Your task to perform on an android device: Clear the cart on walmart.com. Image 0: 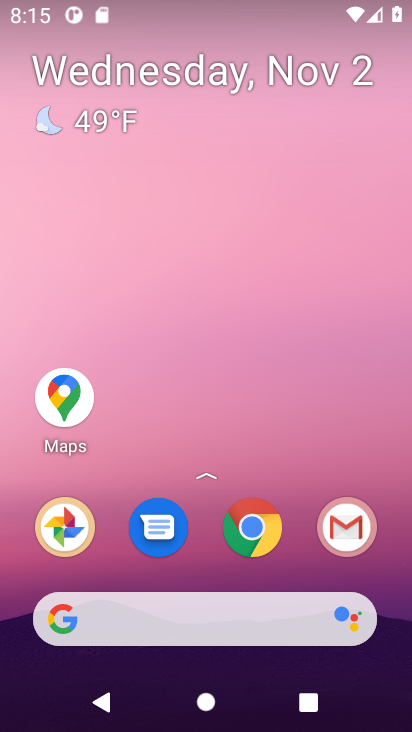
Step 0: click (254, 527)
Your task to perform on an android device: Clear the cart on walmart.com. Image 1: 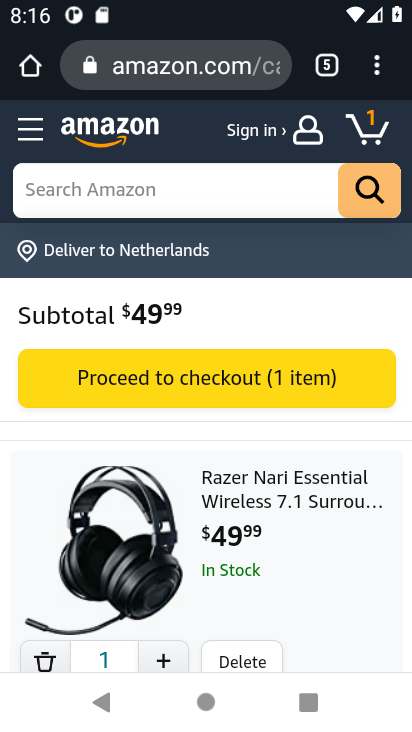
Step 1: click (214, 66)
Your task to perform on an android device: Clear the cart on walmart.com. Image 2: 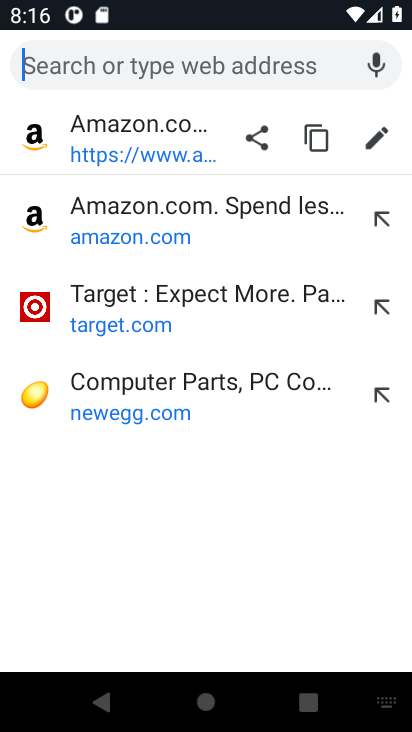
Step 2: type "walmart"
Your task to perform on an android device: Clear the cart on walmart.com. Image 3: 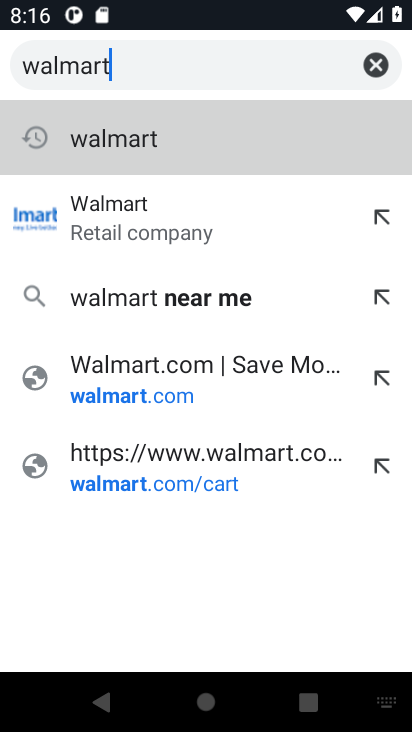
Step 3: click (127, 139)
Your task to perform on an android device: Clear the cart on walmart.com. Image 4: 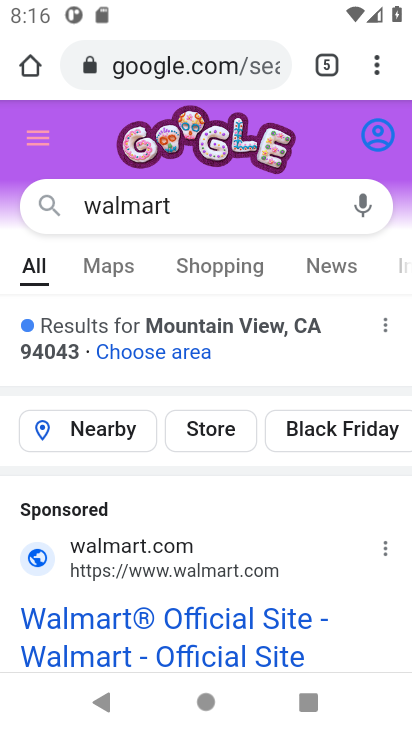
Step 4: drag from (221, 508) to (175, 169)
Your task to perform on an android device: Clear the cart on walmart.com. Image 5: 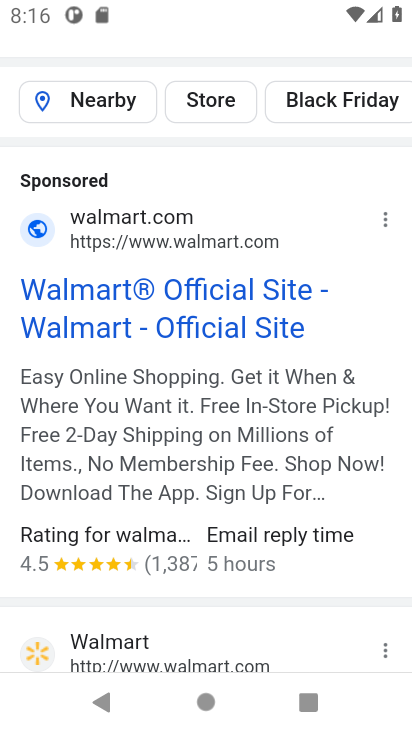
Step 5: click (112, 646)
Your task to perform on an android device: Clear the cart on walmart.com. Image 6: 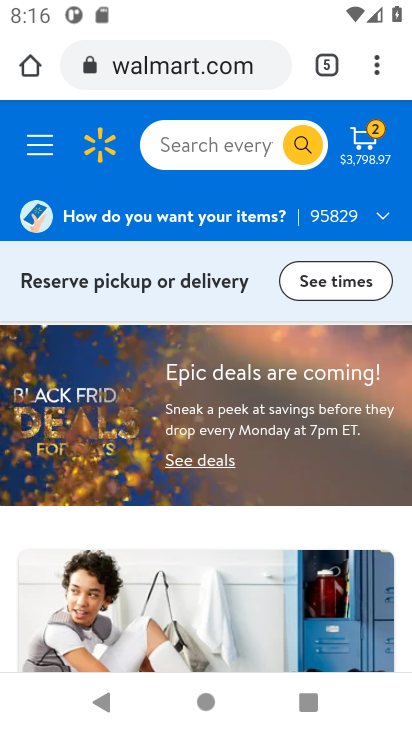
Step 6: click (365, 139)
Your task to perform on an android device: Clear the cart on walmart.com. Image 7: 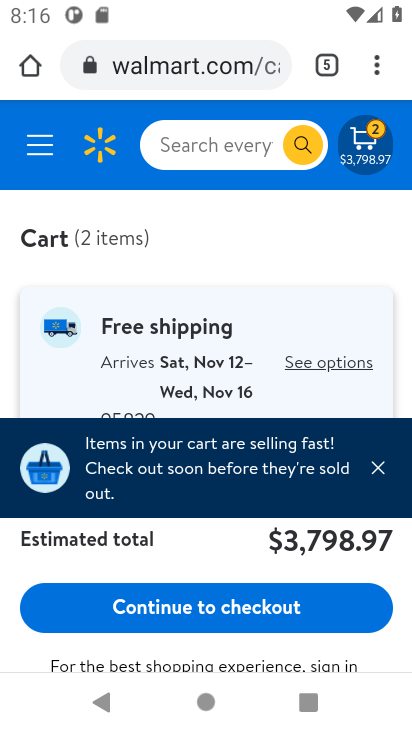
Step 7: click (376, 473)
Your task to perform on an android device: Clear the cart on walmart.com. Image 8: 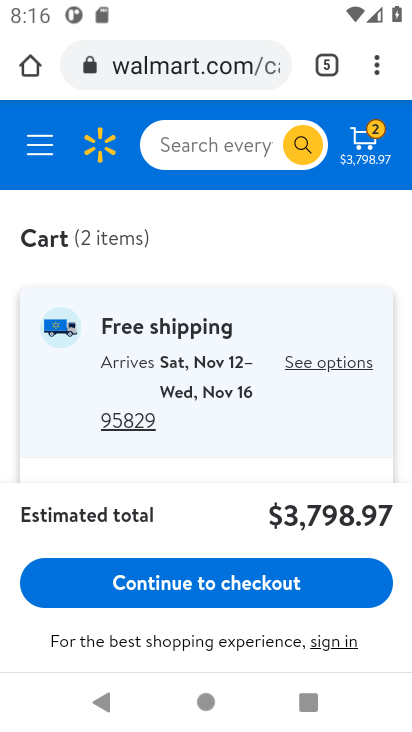
Step 8: drag from (399, 457) to (365, 59)
Your task to perform on an android device: Clear the cart on walmart.com. Image 9: 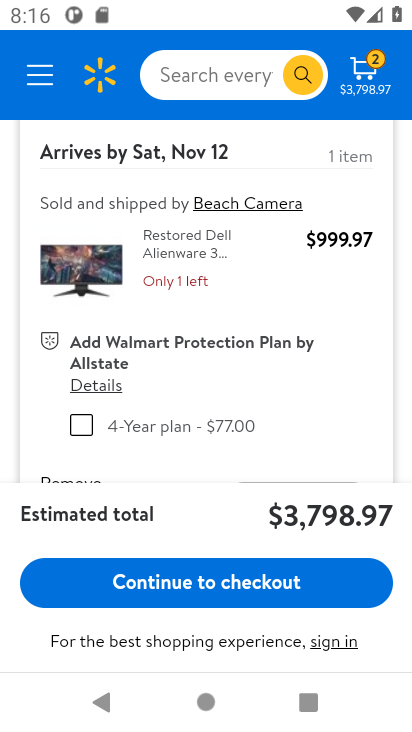
Step 9: drag from (344, 398) to (336, 311)
Your task to perform on an android device: Clear the cart on walmart.com. Image 10: 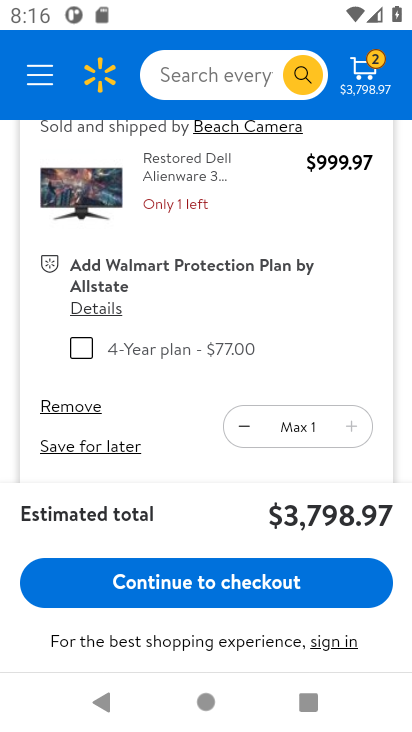
Step 10: click (90, 409)
Your task to perform on an android device: Clear the cart on walmart.com. Image 11: 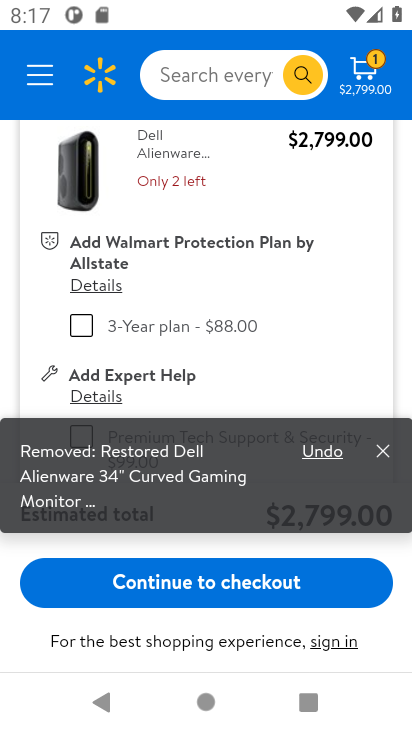
Step 11: click (381, 452)
Your task to perform on an android device: Clear the cart on walmart.com. Image 12: 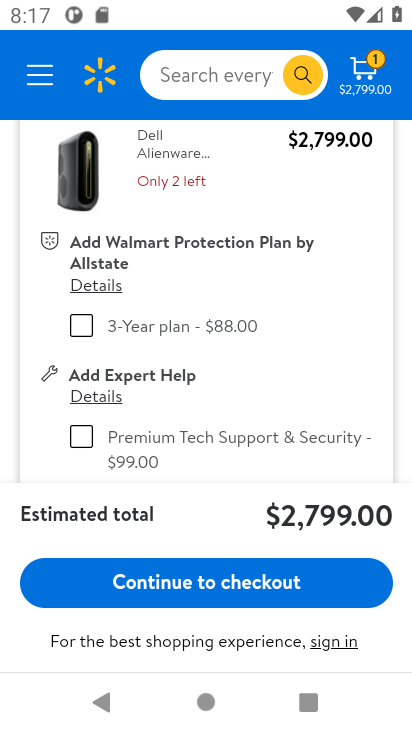
Step 12: drag from (258, 382) to (260, 230)
Your task to perform on an android device: Clear the cart on walmart.com. Image 13: 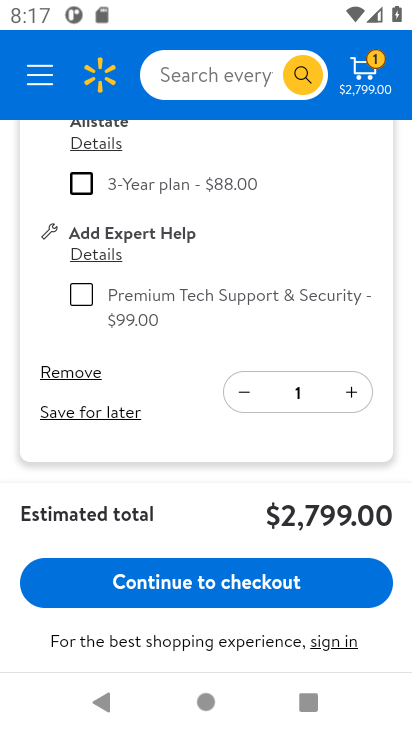
Step 13: click (58, 375)
Your task to perform on an android device: Clear the cart on walmart.com. Image 14: 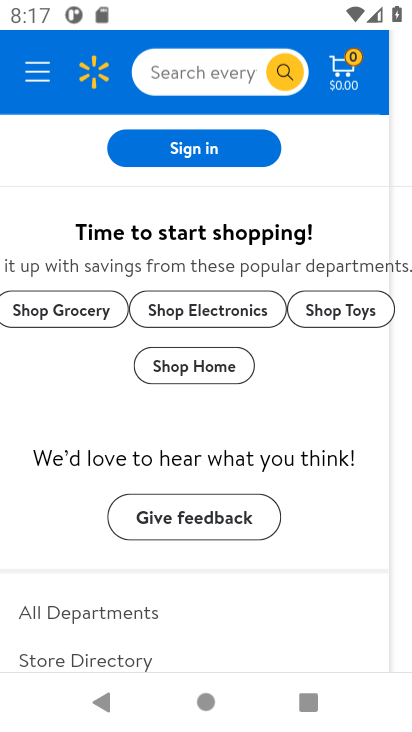
Step 14: task complete